Your task to perform on an android device: turn on the 12-hour format for clock Image 0: 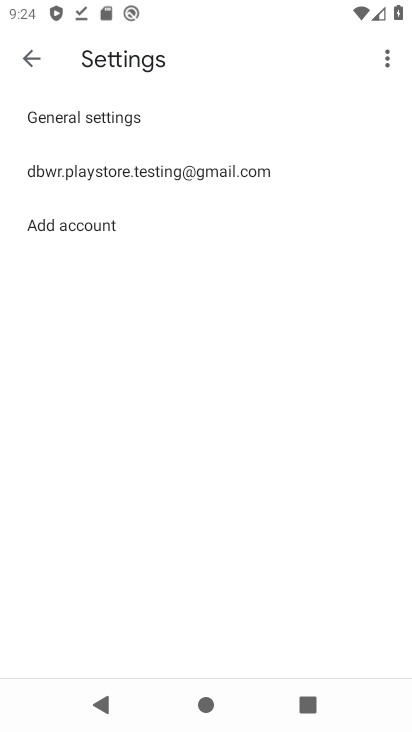
Step 0: press home button
Your task to perform on an android device: turn on the 12-hour format for clock Image 1: 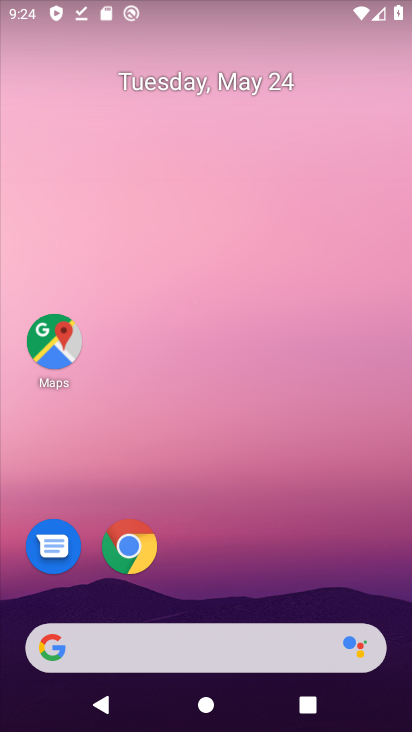
Step 1: drag from (222, 533) to (169, 147)
Your task to perform on an android device: turn on the 12-hour format for clock Image 2: 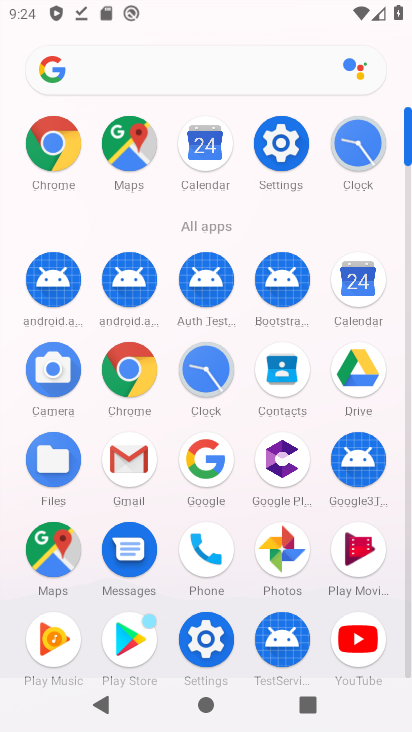
Step 2: click (356, 145)
Your task to perform on an android device: turn on the 12-hour format for clock Image 3: 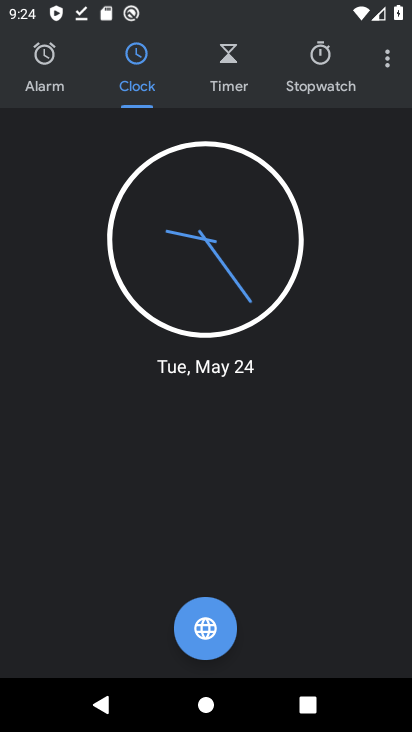
Step 3: click (388, 60)
Your task to perform on an android device: turn on the 12-hour format for clock Image 4: 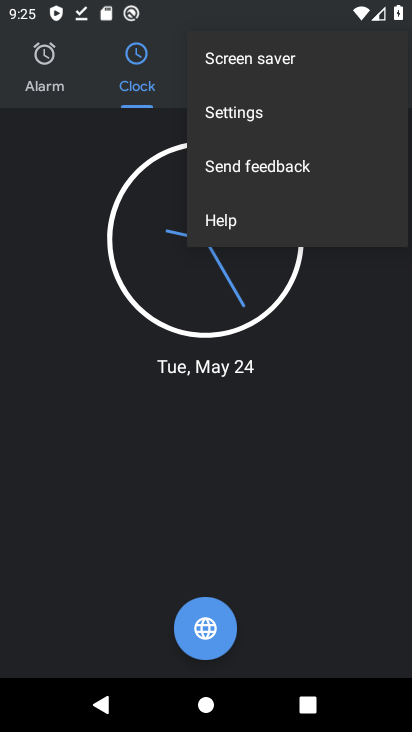
Step 4: click (253, 114)
Your task to perform on an android device: turn on the 12-hour format for clock Image 5: 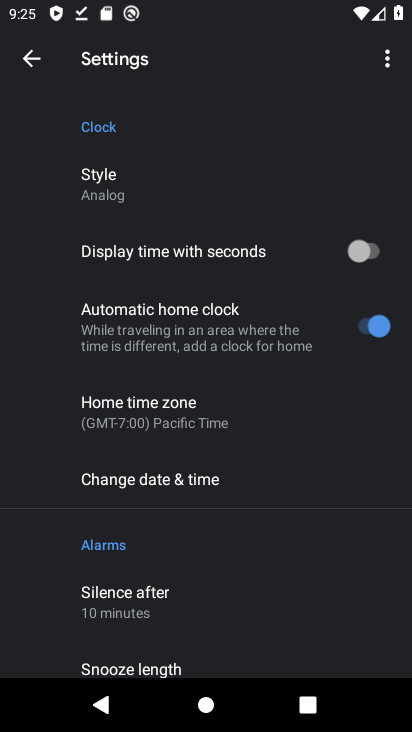
Step 5: click (184, 476)
Your task to perform on an android device: turn on the 12-hour format for clock Image 6: 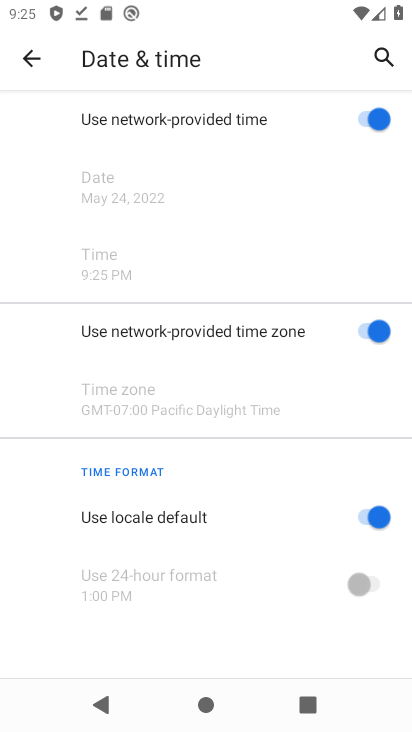
Step 6: task complete